Your task to perform on an android device: turn on airplane mode Image 0: 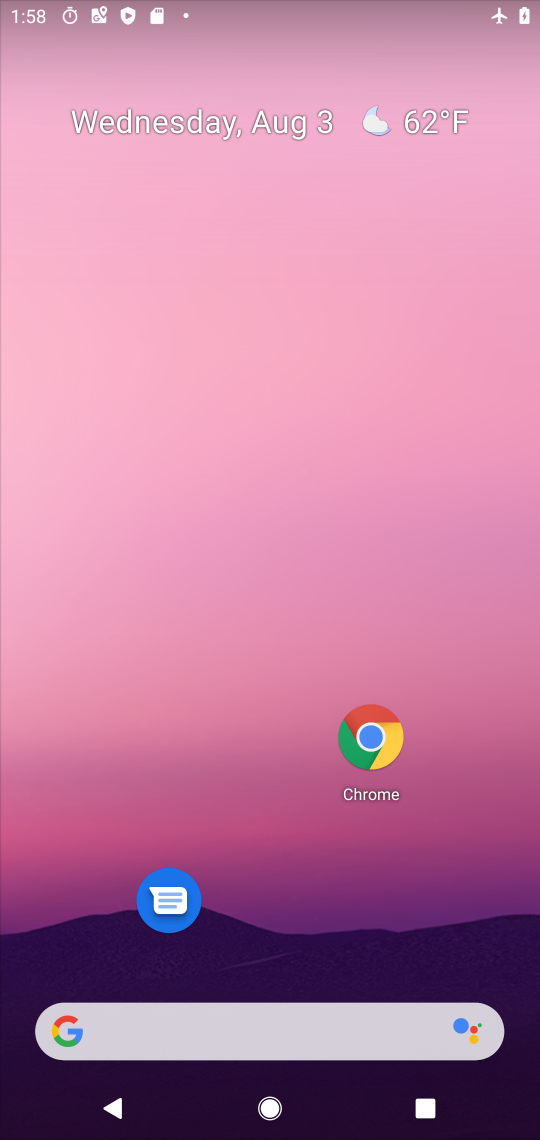
Step 0: drag from (297, 655) to (361, 132)
Your task to perform on an android device: turn on airplane mode Image 1: 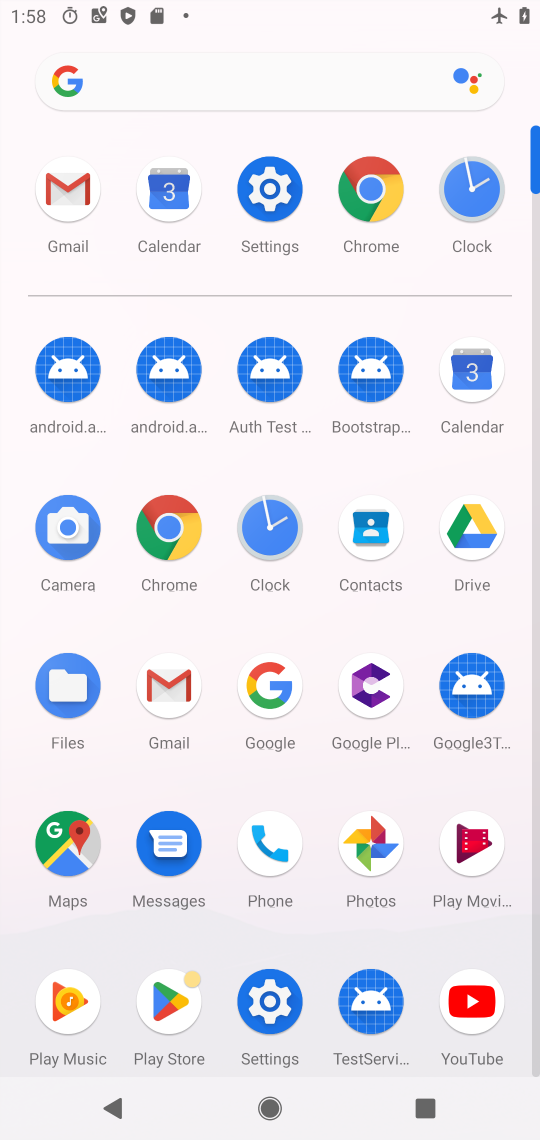
Step 1: click (265, 163)
Your task to perform on an android device: turn on airplane mode Image 2: 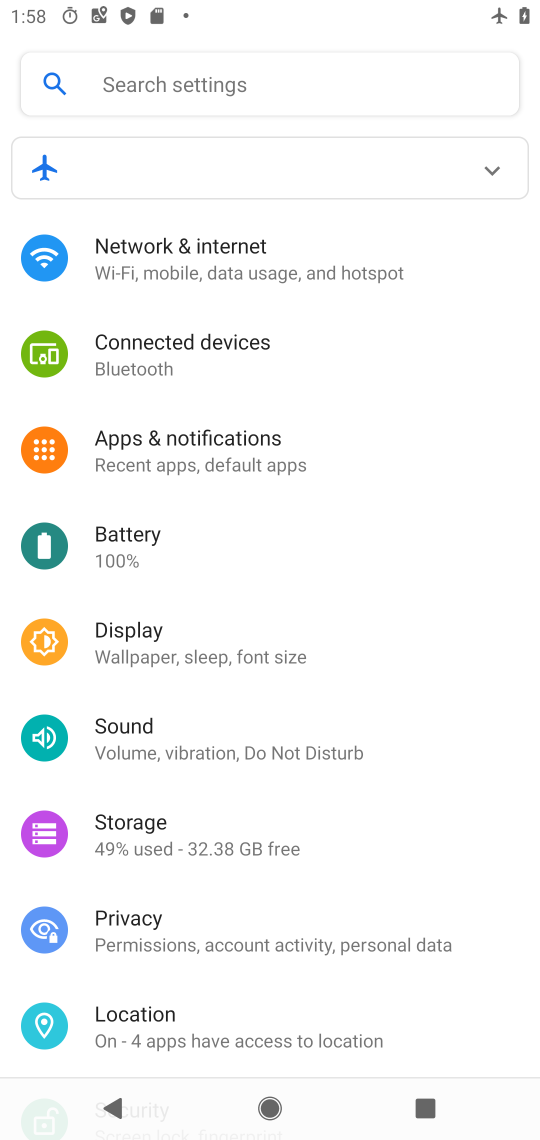
Step 2: click (236, 262)
Your task to perform on an android device: turn on airplane mode Image 3: 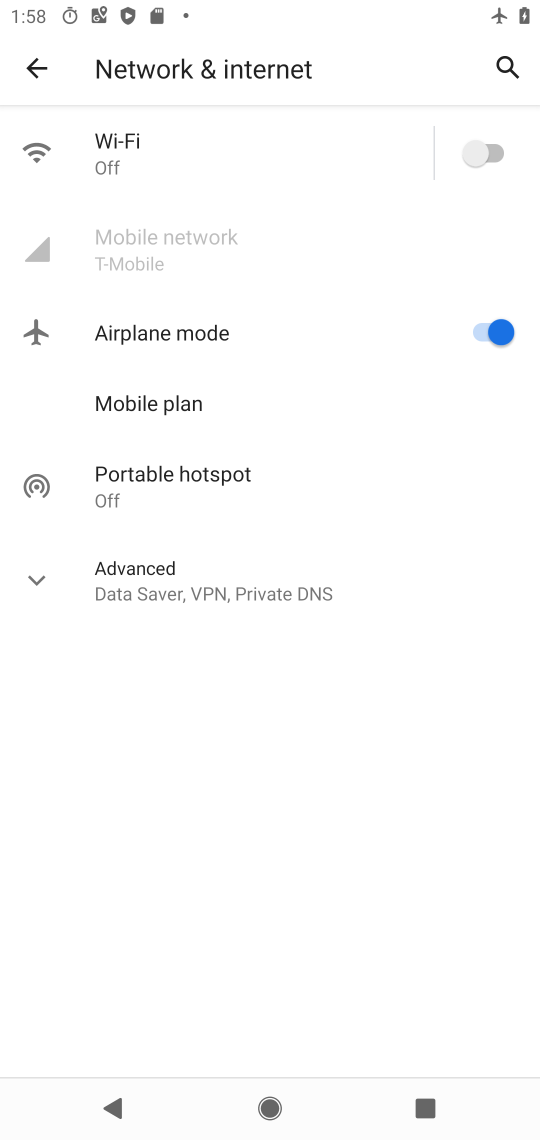
Step 3: task complete